Your task to perform on an android device: add a contact in the contacts app Image 0: 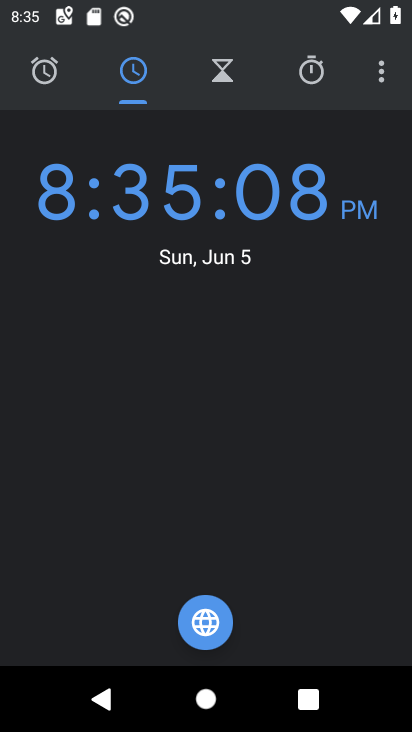
Step 0: press home button
Your task to perform on an android device: add a contact in the contacts app Image 1: 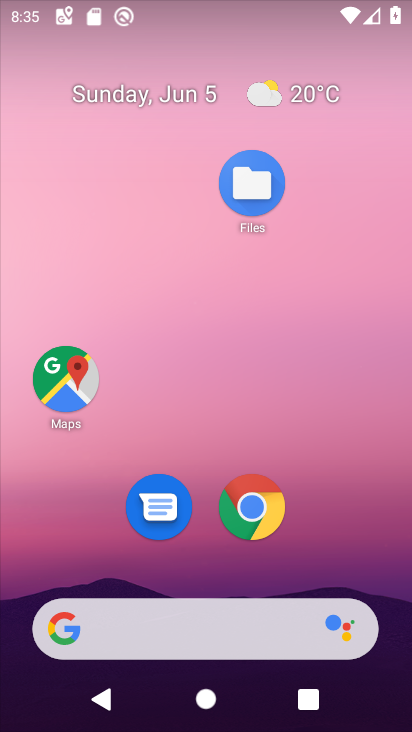
Step 1: drag from (235, 585) to (194, 104)
Your task to perform on an android device: add a contact in the contacts app Image 2: 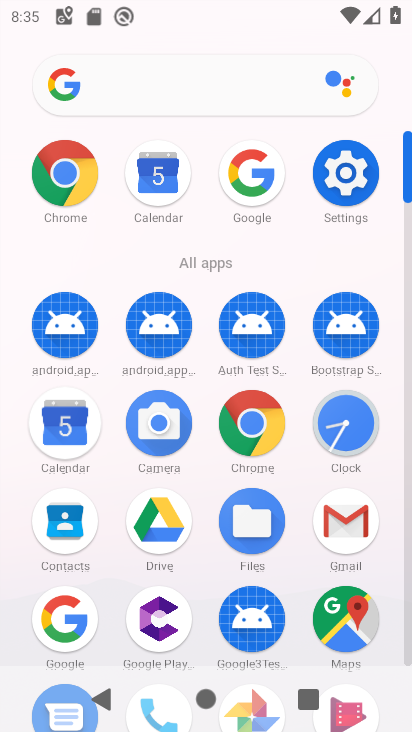
Step 2: drag from (110, 596) to (84, 349)
Your task to perform on an android device: add a contact in the contacts app Image 3: 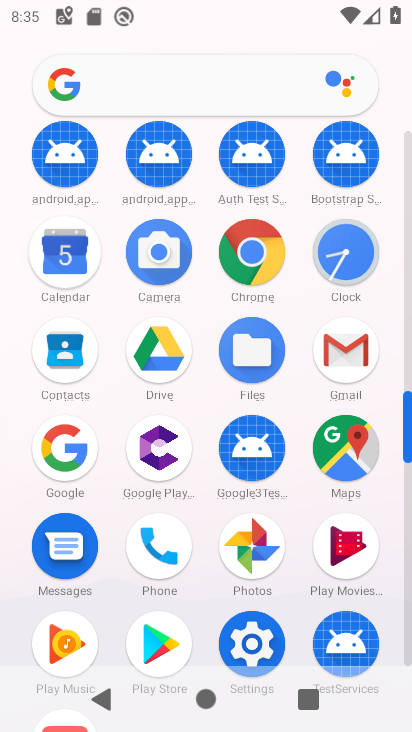
Step 3: click (168, 558)
Your task to perform on an android device: add a contact in the contacts app Image 4: 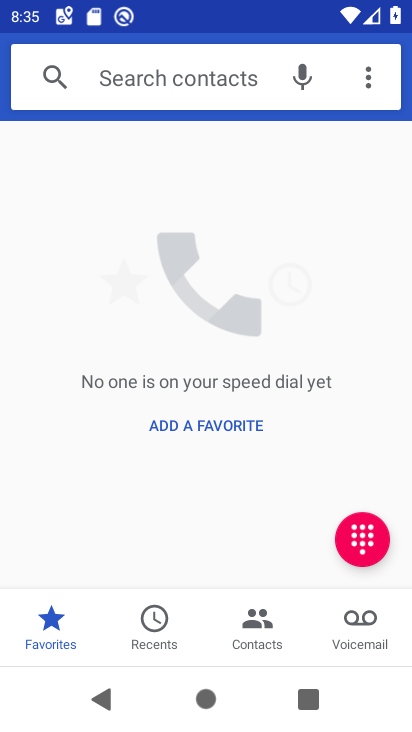
Step 4: click (243, 620)
Your task to perform on an android device: add a contact in the contacts app Image 5: 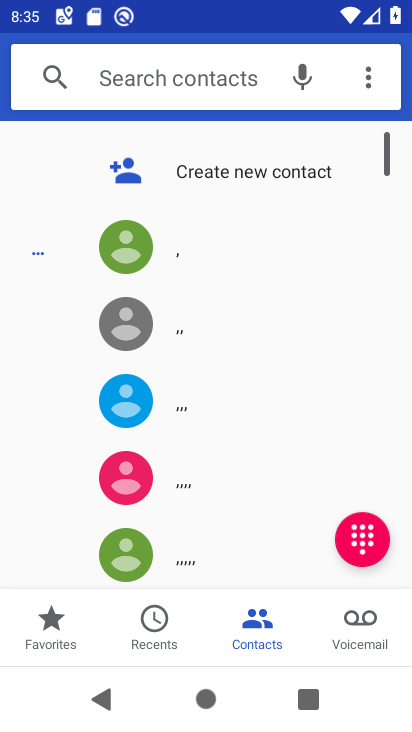
Step 5: click (268, 182)
Your task to perform on an android device: add a contact in the contacts app Image 6: 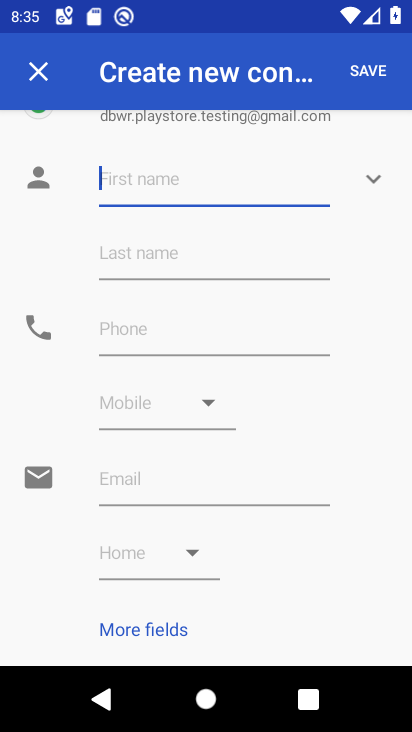
Step 6: type "mbnm"
Your task to perform on an android device: add a contact in the contacts app Image 7: 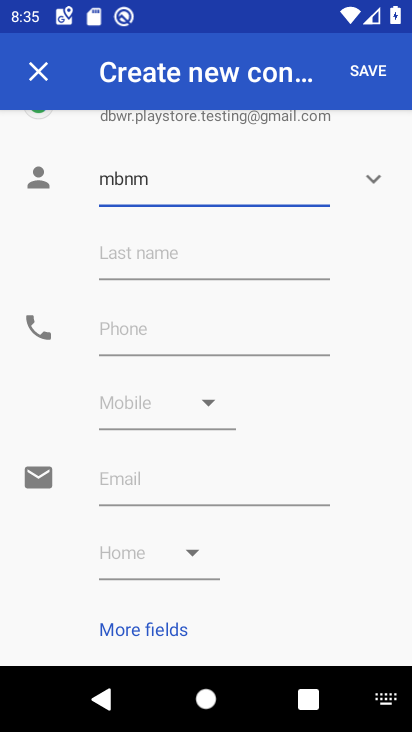
Step 7: click (302, 341)
Your task to perform on an android device: add a contact in the contacts app Image 8: 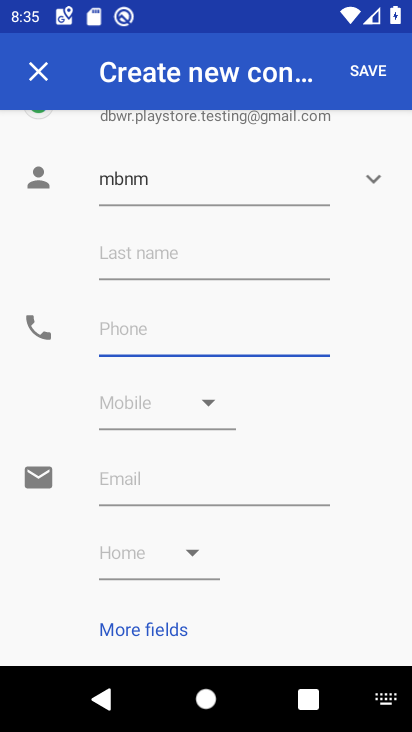
Step 8: type "5554"
Your task to perform on an android device: add a contact in the contacts app Image 9: 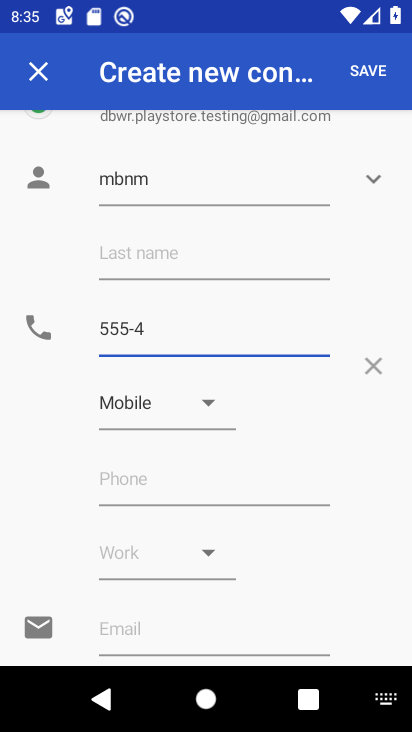
Step 9: click (365, 73)
Your task to perform on an android device: add a contact in the contacts app Image 10: 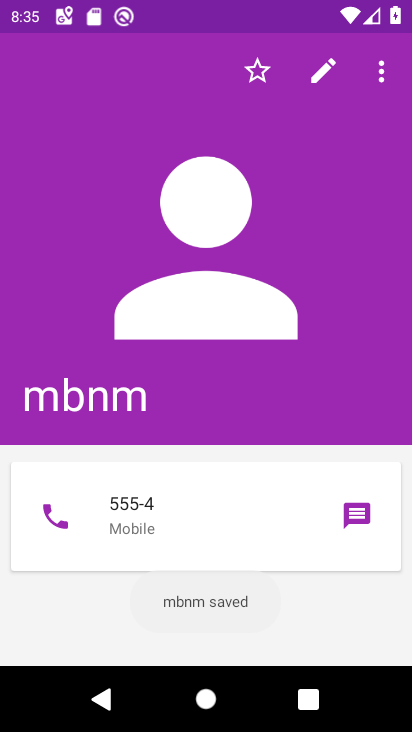
Step 10: task complete